Your task to perform on an android device: Find coffee shops on Maps Image 0: 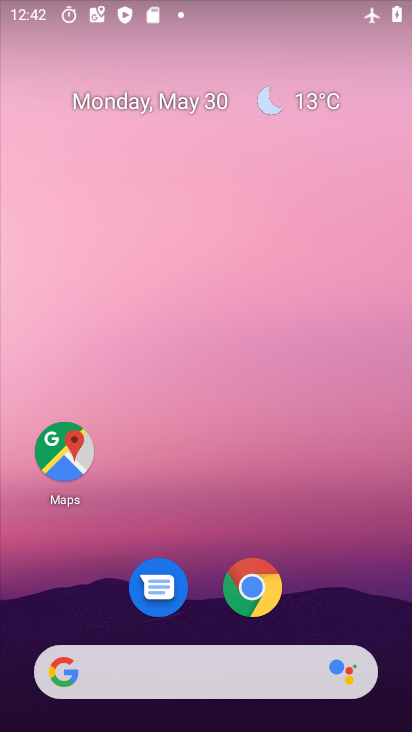
Step 0: click (70, 459)
Your task to perform on an android device: Find coffee shops on Maps Image 1: 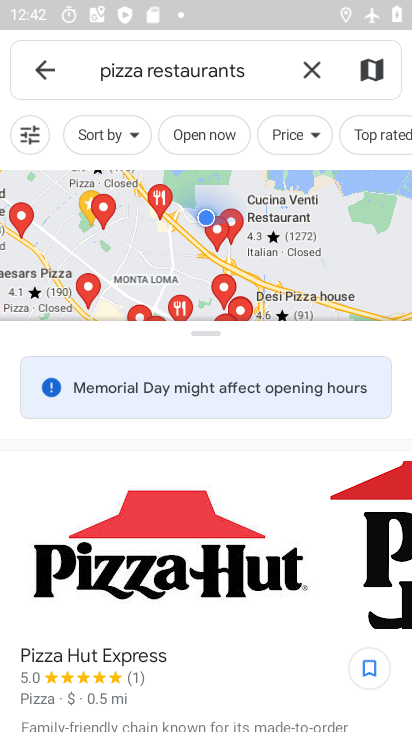
Step 1: click (265, 63)
Your task to perform on an android device: Find coffee shops on Maps Image 2: 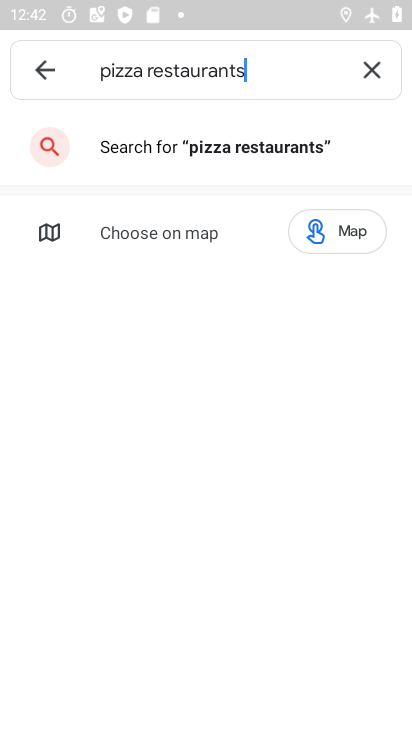
Step 2: click (317, 69)
Your task to perform on an android device: Find coffee shops on Maps Image 3: 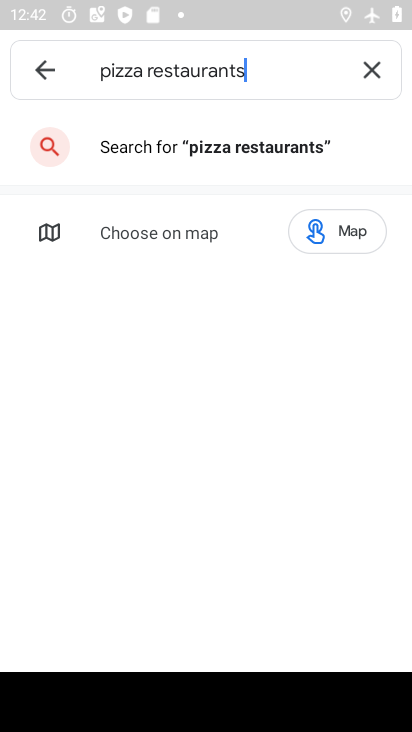
Step 3: click (384, 75)
Your task to perform on an android device: Find coffee shops on Maps Image 4: 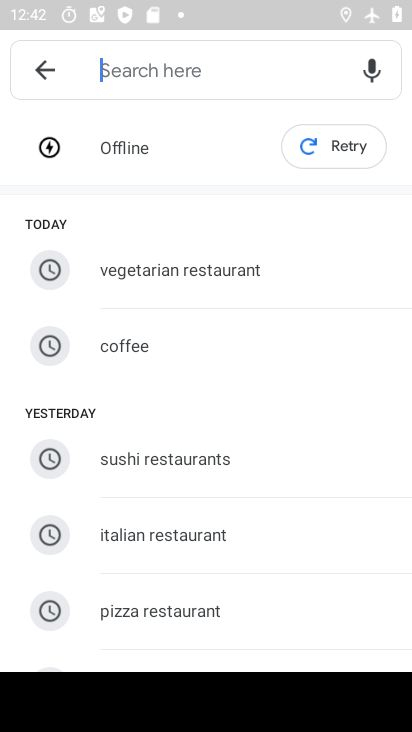
Step 4: type "coffee shops"
Your task to perform on an android device: Find coffee shops on Maps Image 5: 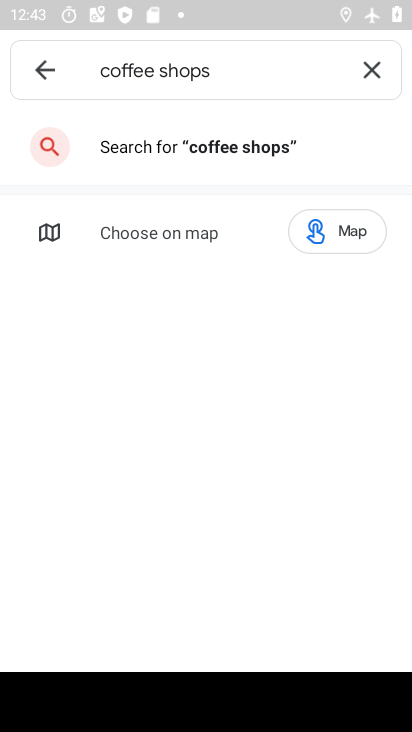
Step 5: click (222, 152)
Your task to perform on an android device: Find coffee shops on Maps Image 6: 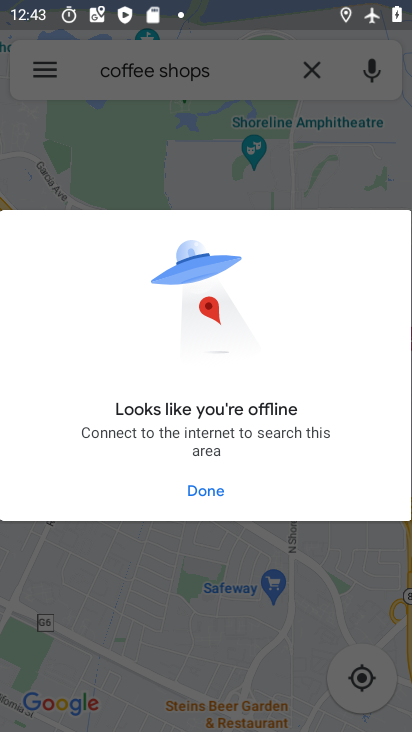
Step 6: task complete